Your task to perform on an android device: Search for a nightstand on IKEA. Image 0: 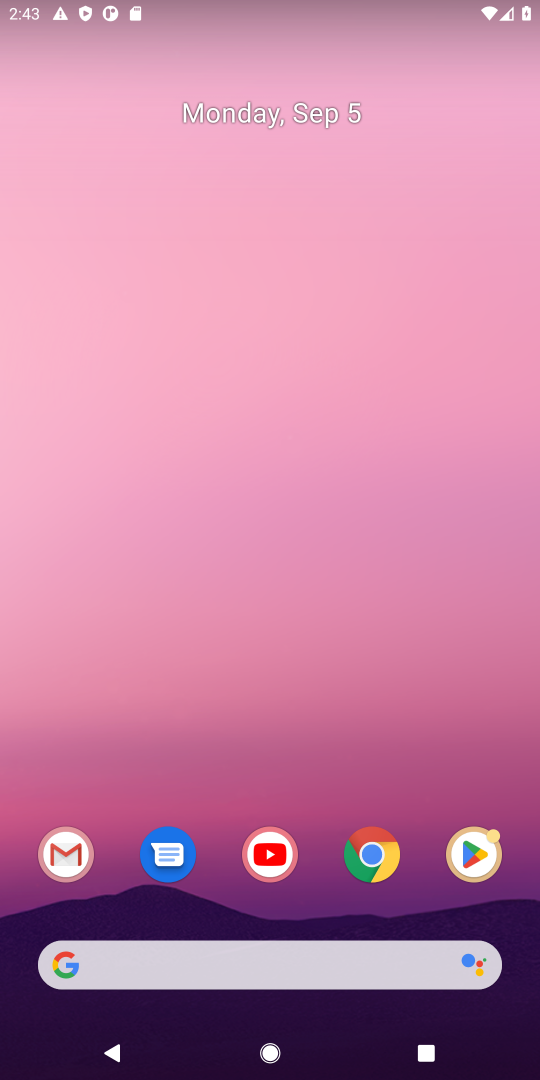
Step 0: click (364, 963)
Your task to perform on an android device: Search for a nightstand on IKEA. Image 1: 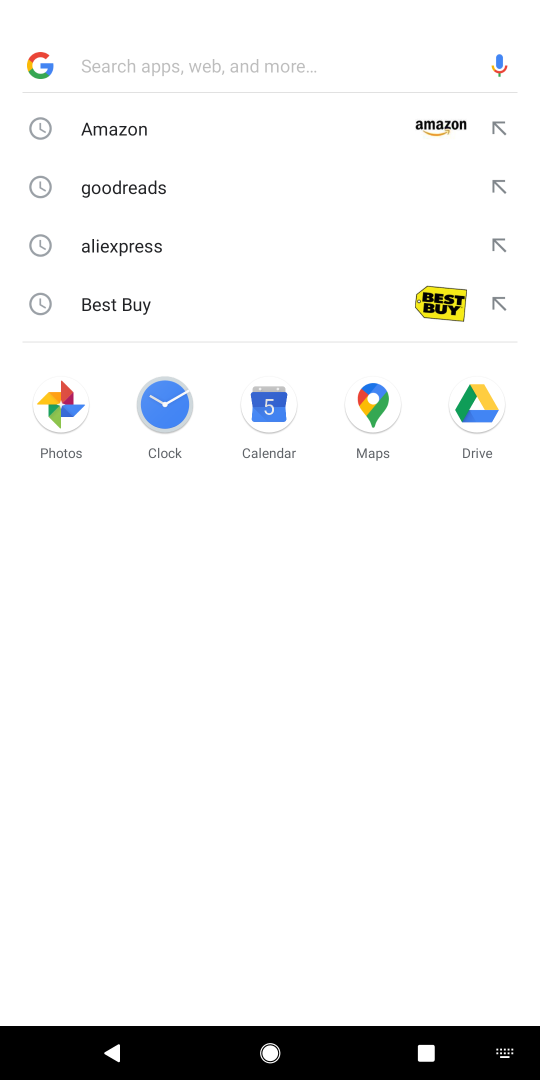
Step 1: type "ikea"
Your task to perform on an android device: Search for a nightstand on IKEA. Image 2: 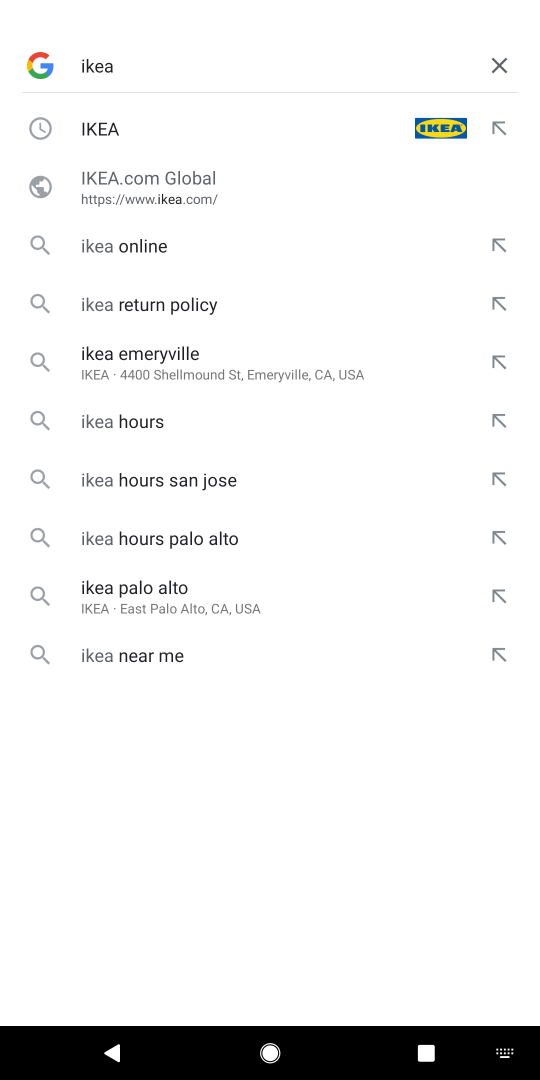
Step 2: press enter
Your task to perform on an android device: Search for a nightstand on IKEA. Image 3: 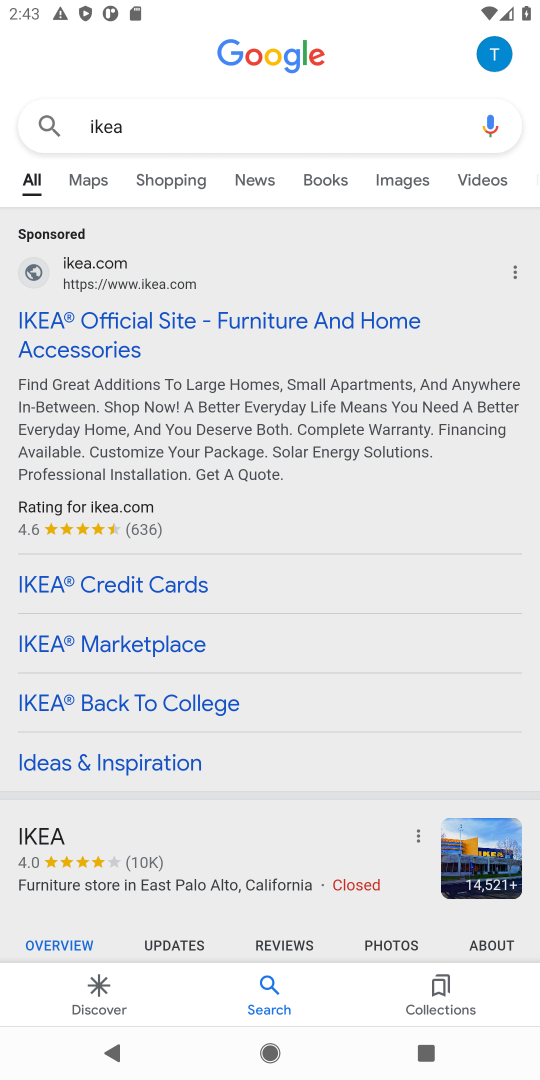
Step 3: click (288, 320)
Your task to perform on an android device: Search for a nightstand on IKEA. Image 4: 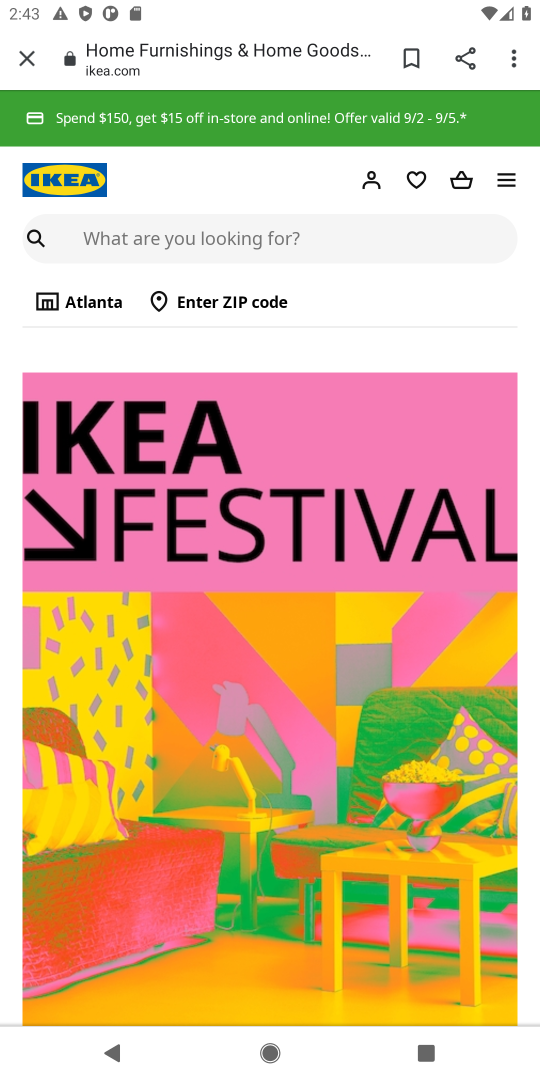
Step 4: click (266, 229)
Your task to perform on an android device: Search for a nightstand on IKEA. Image 5: 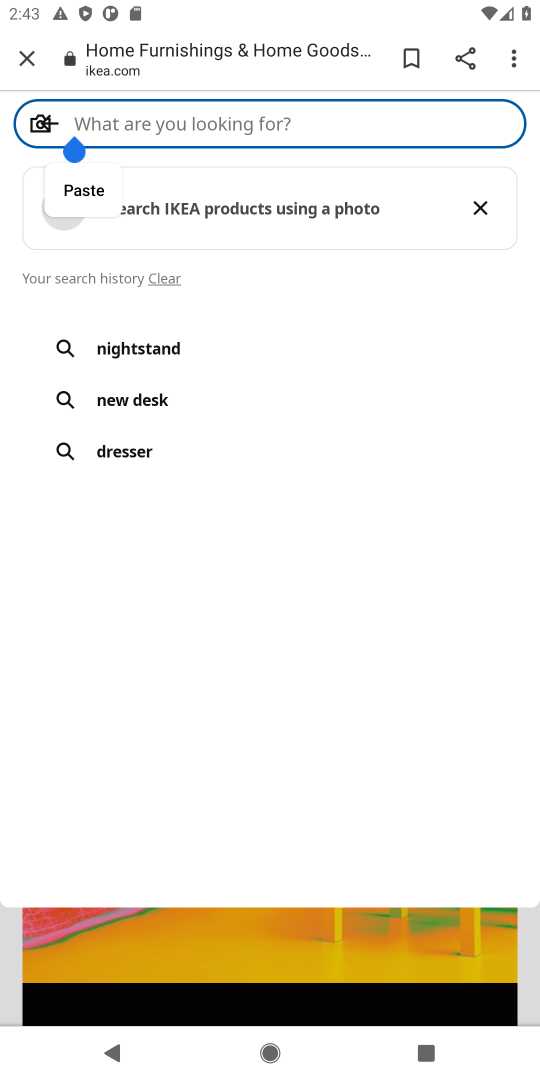
Step 5: type "nightstands"
Your task to perform on an android device: Search for a nightstand on IKEA. Image 6: 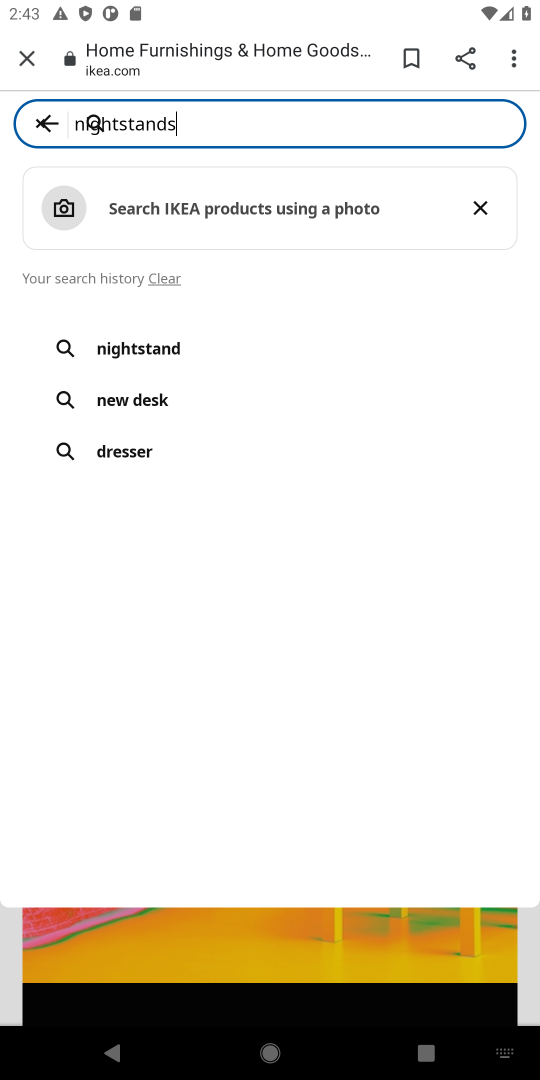
Step 6: press enter
Your task to perform on an android device: Search for a nightstand on IKEA. Image 7: 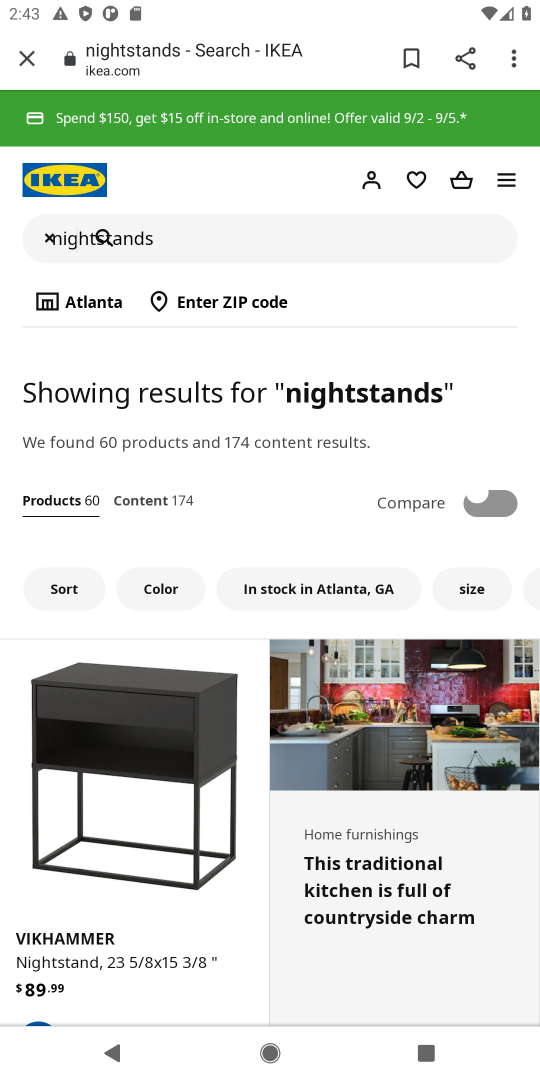
Step 7: task complete